Your task to perform on an android device: open app "Expedia: Hotels, Flights & Car" (install if not already installed) and enter user name: "crusader@outlook.com" and password: "Toryize" Image 0: 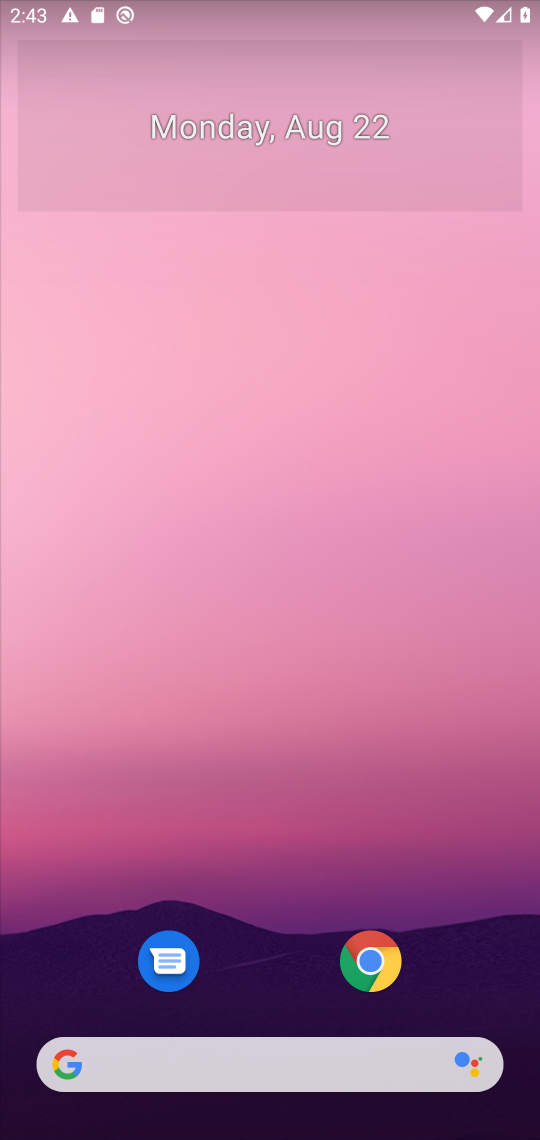
Step 0: press home button
Your task to perform on an android device: open app "Expedia: Hotels, Flights & Car" (install if not already installed) and enter user name: "crusader@outlook.com" and password: "Toryize" Image 1: 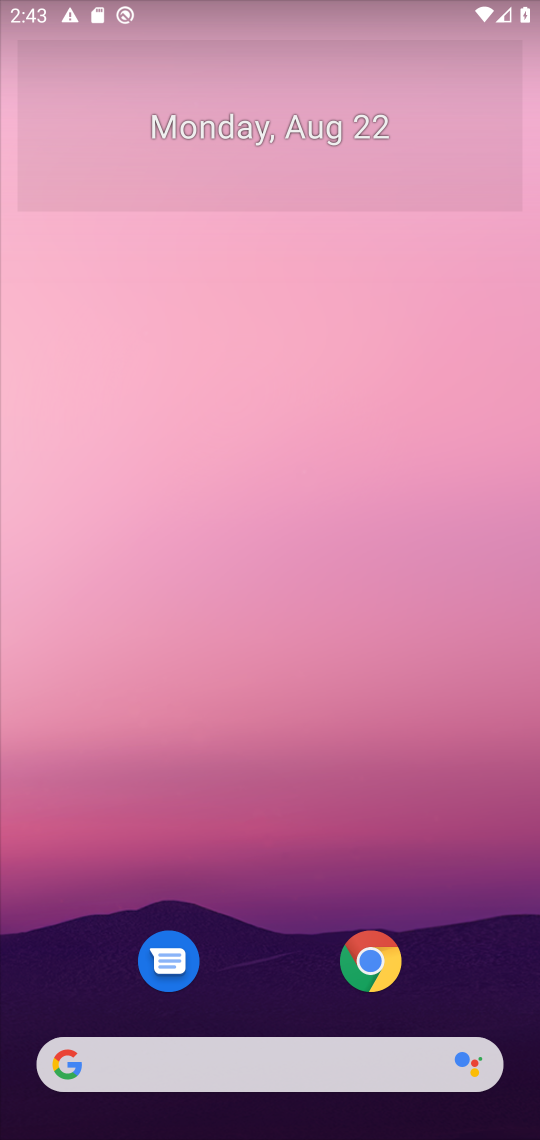
Step 1: drag from (458, 987) to (469, 157)
Your task to perform on an android device: open app "Expedia: Hotels, Flights & Car" (install if not already installed) and enter user name: "crusader@outlook.com" and password: "Toryize" Image 2: 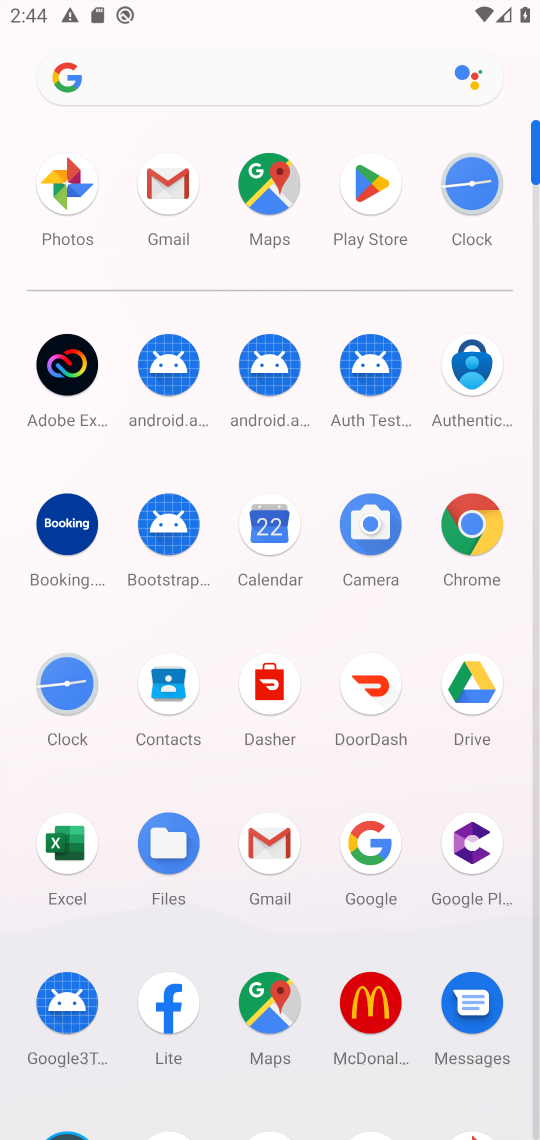
Step 2: click (375, 184)
Your task to perform on an android device: open app "Expedia: Hotels, Flights & Car" (install if not already installed) and enter user name: "crusader@outlook.com" and password: "Toryize" Image 3: 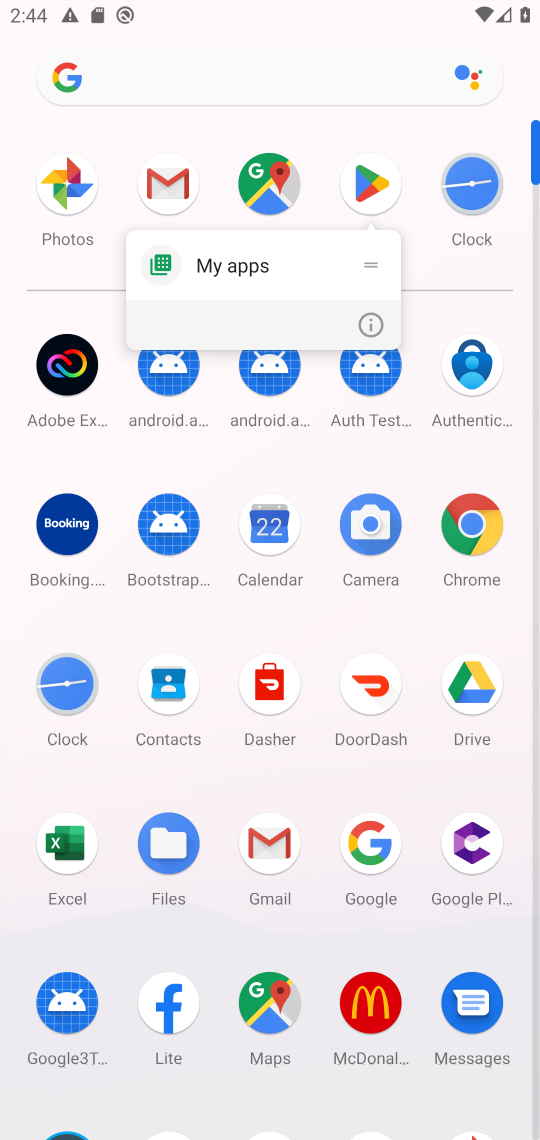
Step 3: click (375, 184)
Your task to perform on an android device: open app "Expedia: Hotels, Flights & Car" (install if not already installed) and enter user name: "crusader@outlook.com" and password: "Toryize" Image 4: 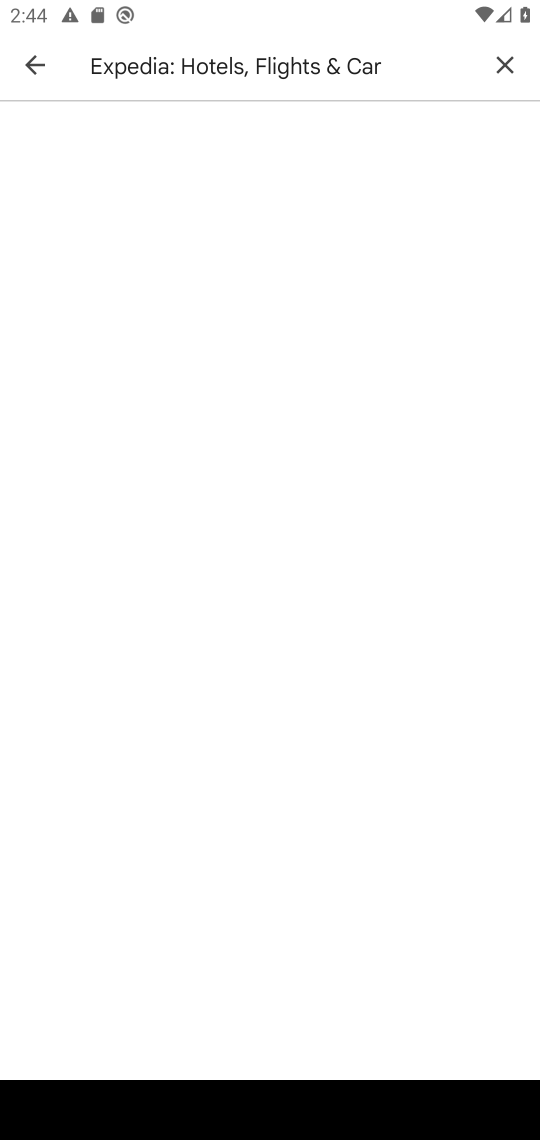
Step 4: press back button
Your task to perform on an android device: open app "Expedia: Hotels, Flights & Car" (install if not already installed) and enter user name: "crusader@outlook.com" and password: "Toryize" Image 5: 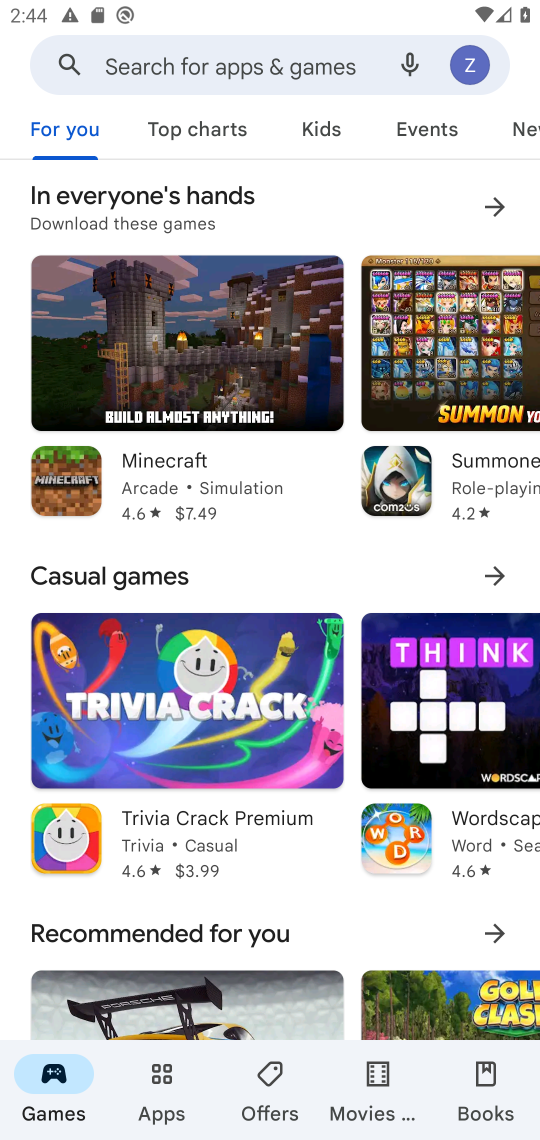
Step 5: click (186, 65)
Your task to perform on an android device: open app "Expedia: Hotels, Flights & Car" (install if not already installed) and enter user name: "crusader@outlook.com" and password: "Toryize" Image 6: 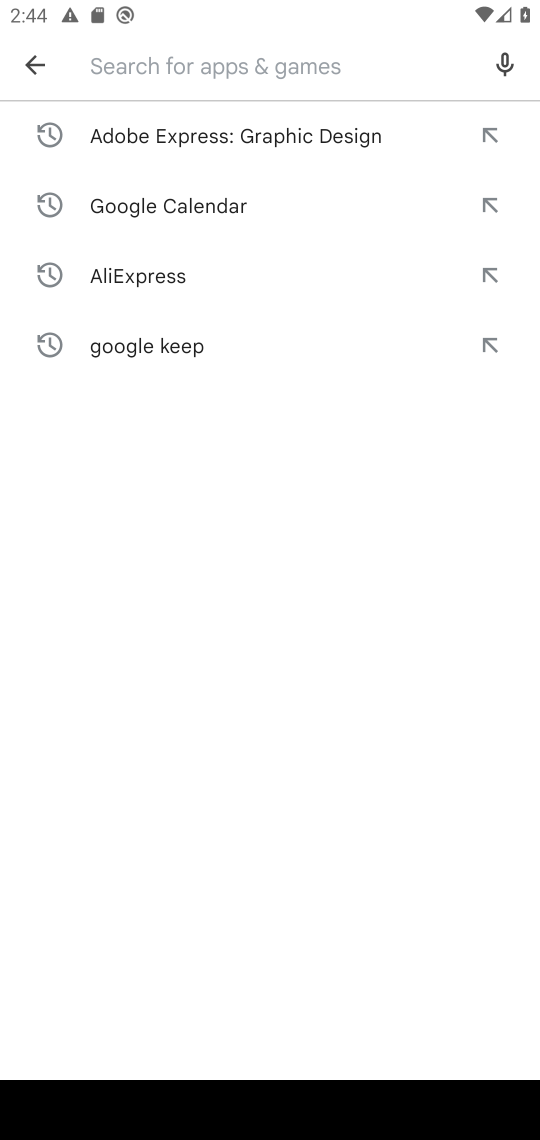
Step 6: type "Expedia: Hotels, Flights & Car"
Your task to perform on an android device: open app "Expedia: Hotels, Flights & Car" (install if not already installed) and enter user name: "crusader@outlook.com" and password: "Toryize" Image 7: 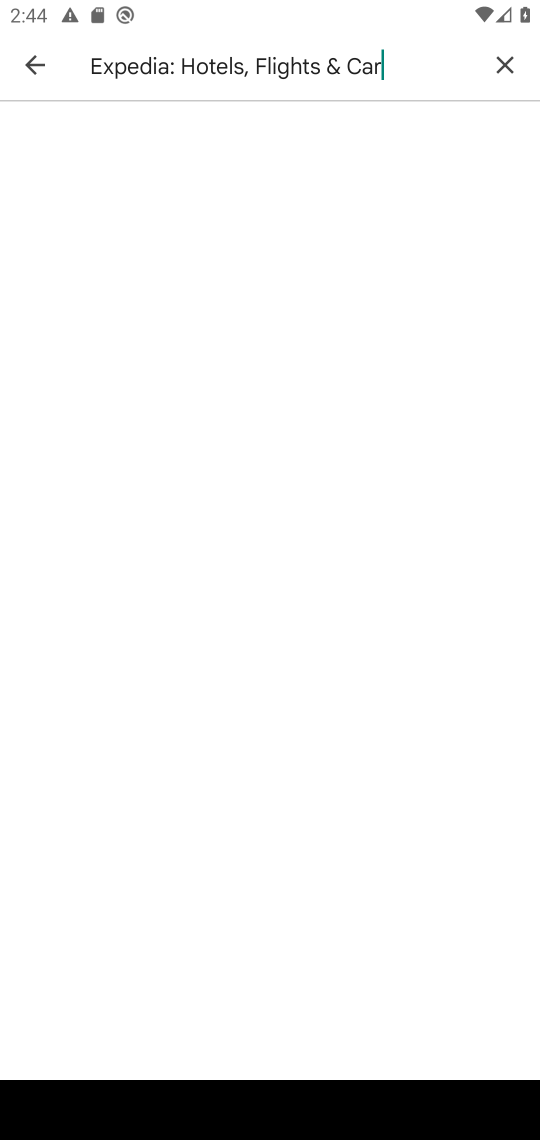
Step 7: press enter
Your task to perform on an android device: open app "Expedia: Hotels, Flights & Car" (install if not already installed) and enter user name: "crusader@outlook.com" and password: "Toryize" Image 8: 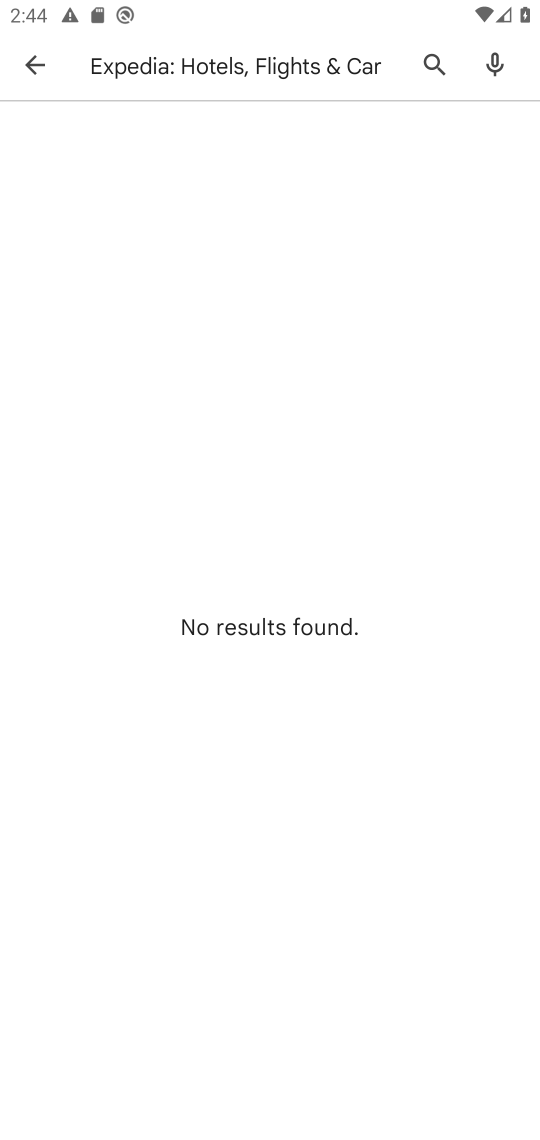
Step 8: task complete